Your task to perform on an android device: toggle location history Image 0: 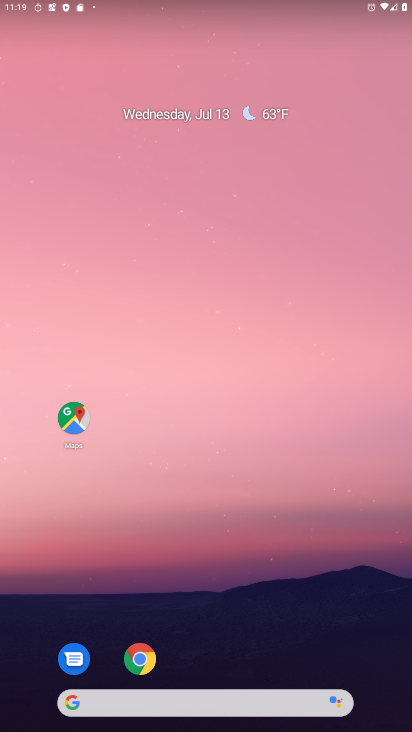
Step 0: drag from (249, 596) to (245, 190)
Your task to perform on an android device: toggle location history Image 1: 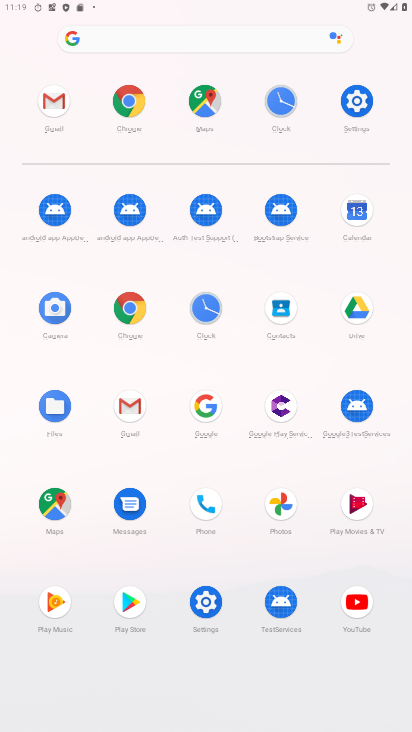
Step 1: click (355, 103)
Your task to perform on an android device: toggle location history Image 2: 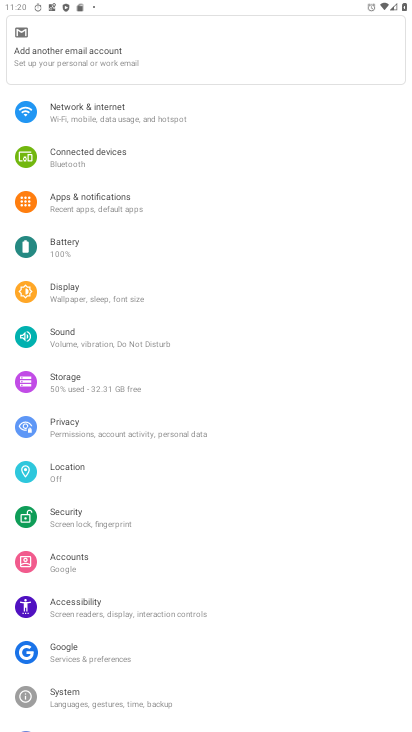
Step 2: click (86, 471)
Your task to perform on an android device: toggle location history Image 3: 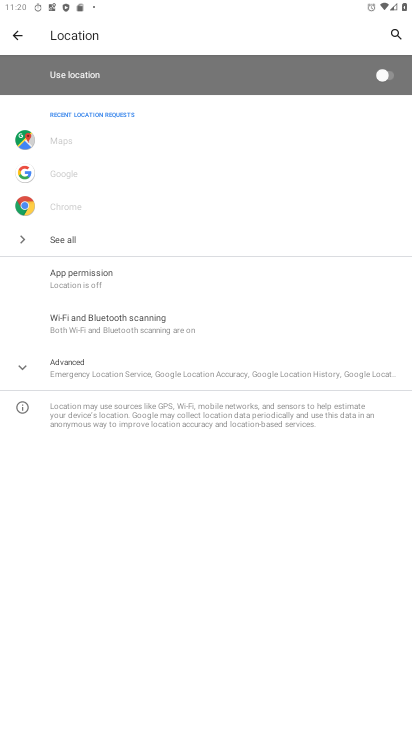
Step 3: click (125, 367)
Your task to perform on an android device: toggle location history Image 4: 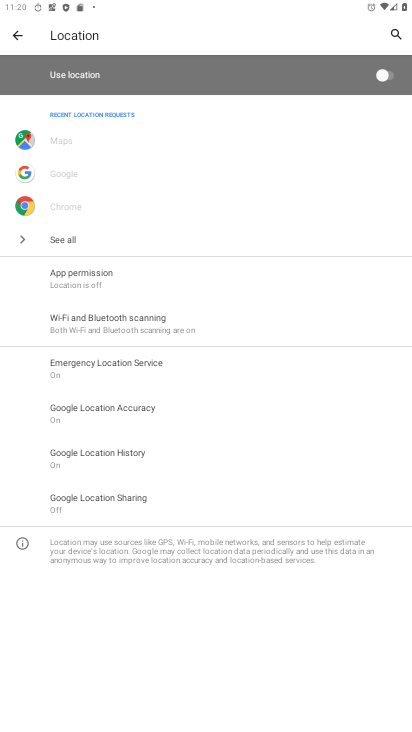
Step 4: click (135, 453)
Your task to perform on an android device: toggle location history Image 5: 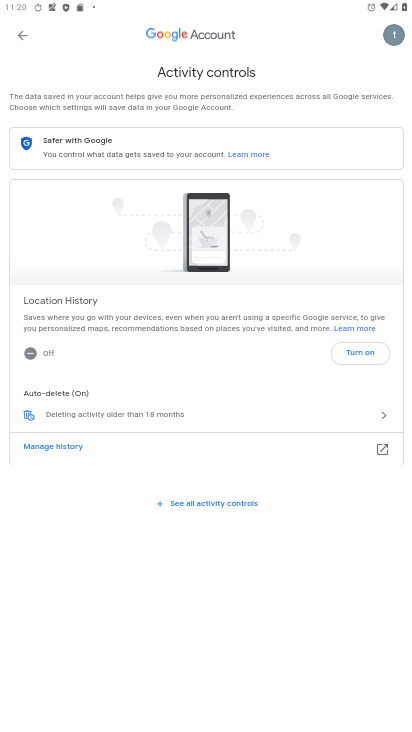
Step 5: click (358, 366)
Your task to perform on an android device: toggle location history Image 6: 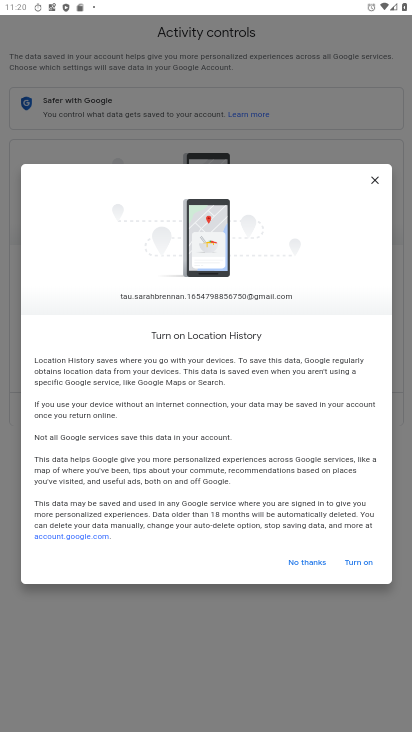
Step 6: click (359, 566)
Your task to perform on an android device: toggle location history Image 7: 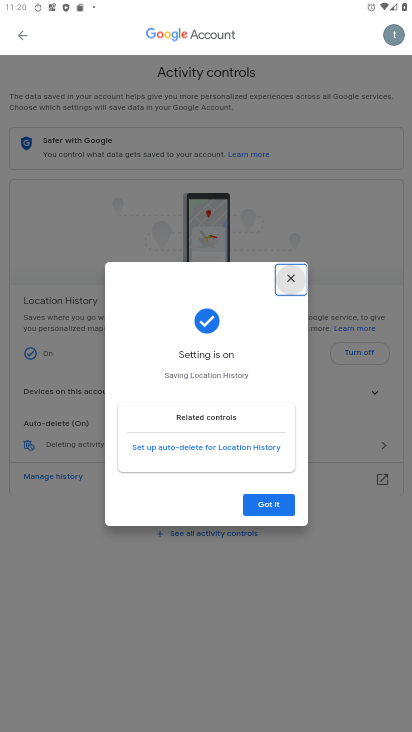
Step 7: task complete